Your task to perform on an android device: Open settings on Google Maps Image 0: 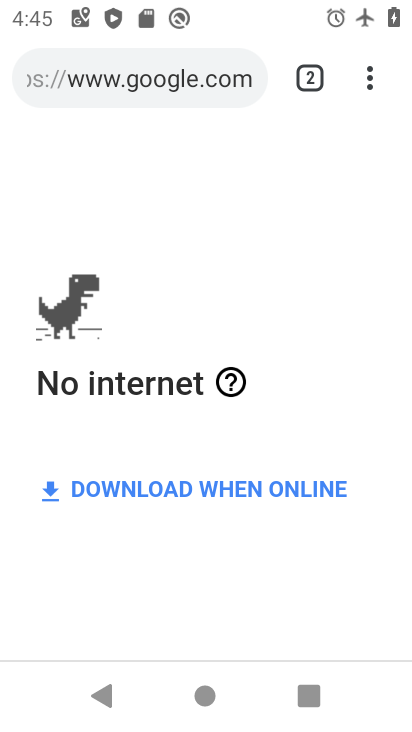
Step 0: press home button
Your task to perform on an android device: Open settings on Google Maps Image 1: 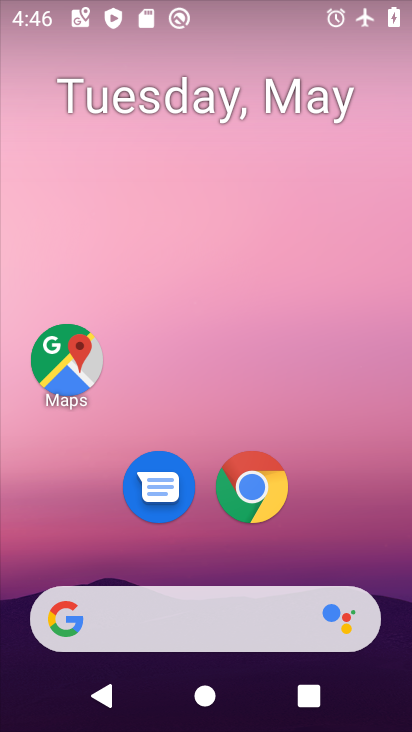
Step 1: click (56, 366)
Your task to perform on an android device: Open settings on Google Maps Image 2: 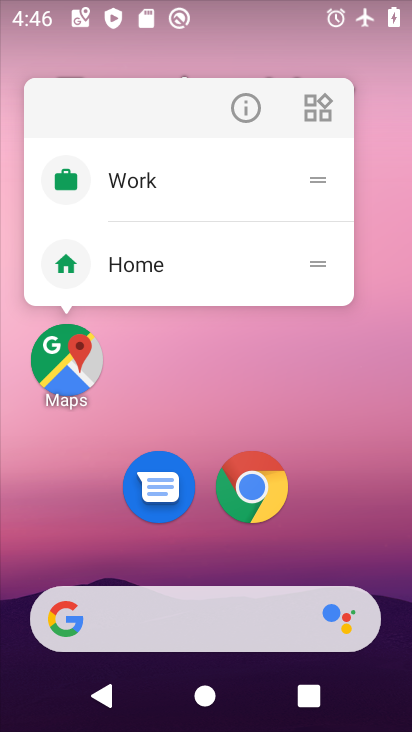
Step 2: click (69, 366)
Your task to perform on an android device: Open settings on Google Maps Image 3: 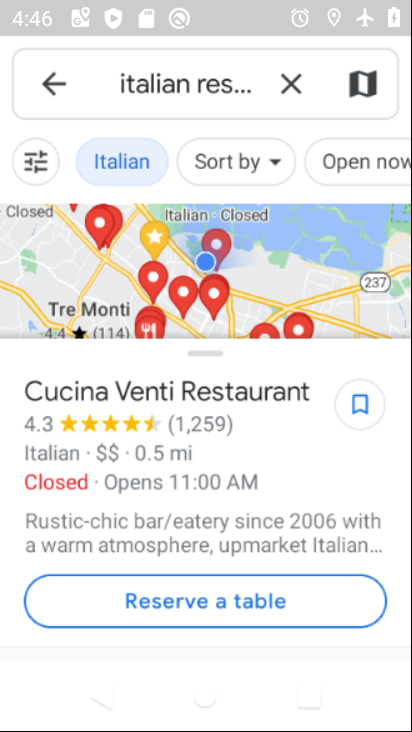
Step 3: click (48, 87)
Your task to perform on an android device: Open settings on Google Maps Image 4: 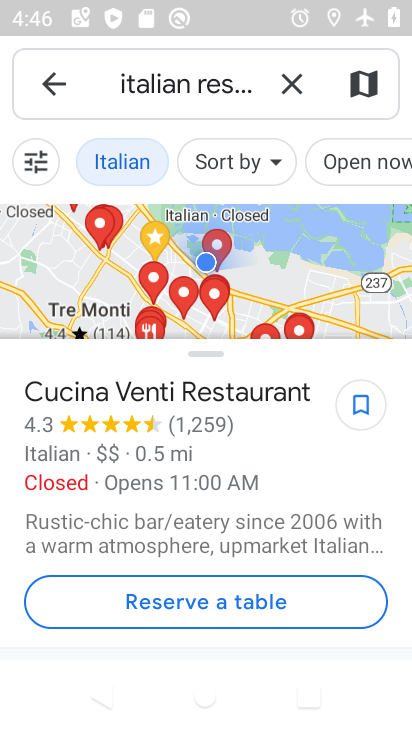
Step 4: click (55, 83)
Your task to perform on an android device: Open settings on Google Maps Image 5: 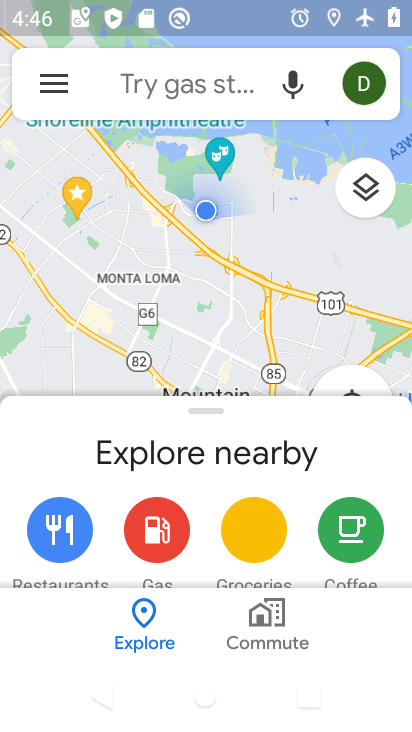
Step 5: click (55, 83)
Your task to perform on an android device: Open settings on Google Maps Image 6: 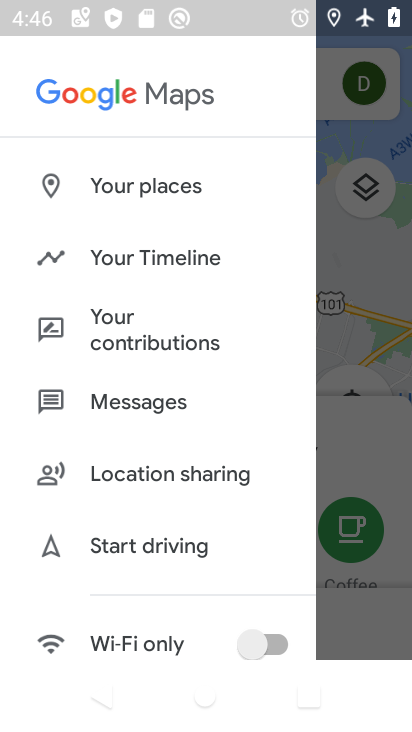
Step 6: drag from (157, 576) to (193, 126)
Your task to perform on an android device: Open settings on Google Maps Image 7: 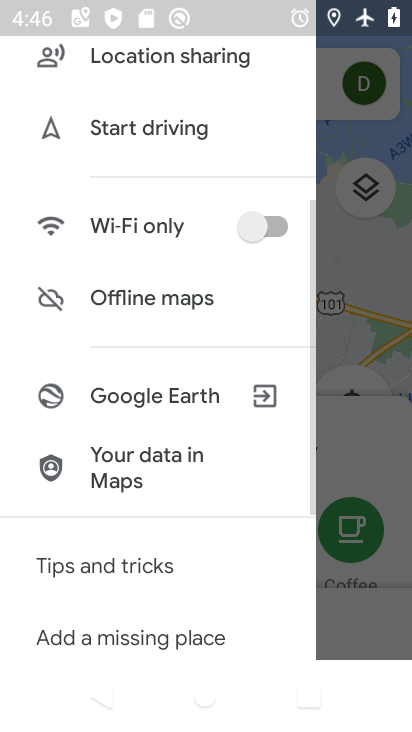
Step 7: drag from (108, 513) to (144, 107)
Your task to perform on an android device: Open settings on Google Maps Image 8: 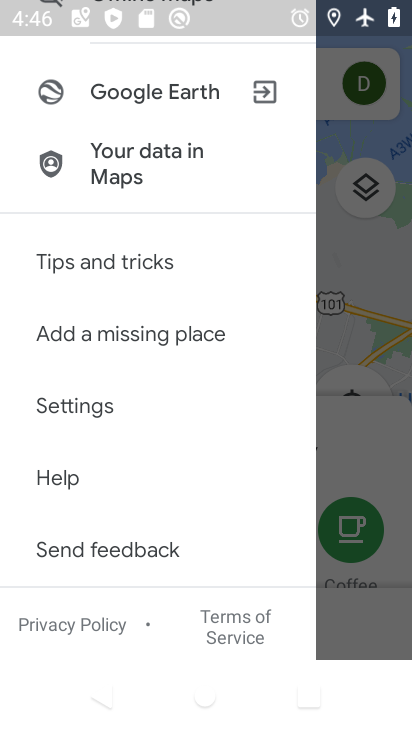
Step 8: click (98, 395)
Your task to perform on an android device: Open settings on Google Maps Image 9: 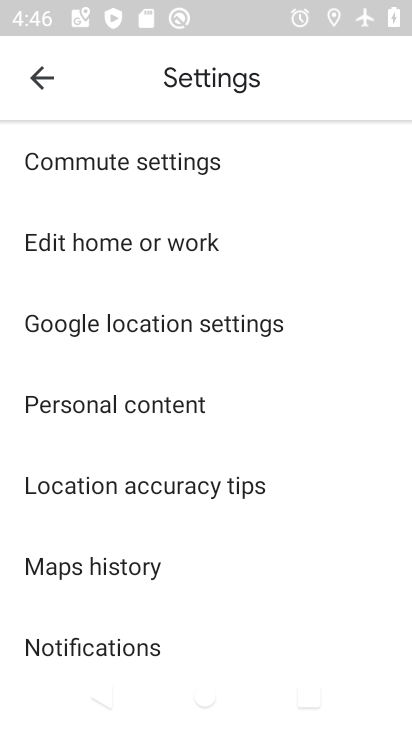
Step 9: task complete